Your task to perform on an android device: toggle show notifications on the lock screen Image 0: 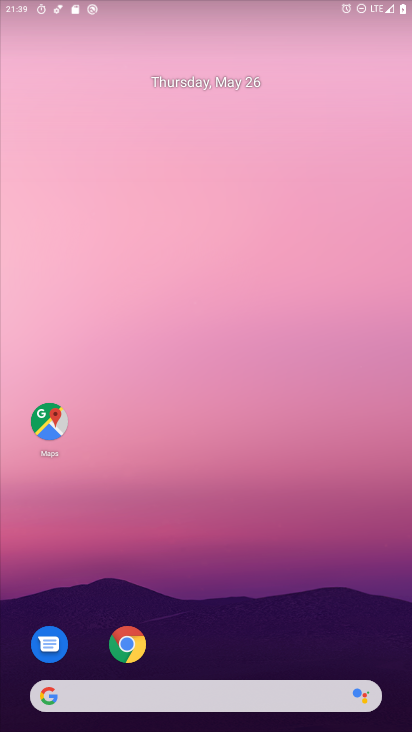
Step 0: drag from (252, 613) to (294, 139)
Your task to perform on an android device: toggle show notifications on the lock screen Image 1: 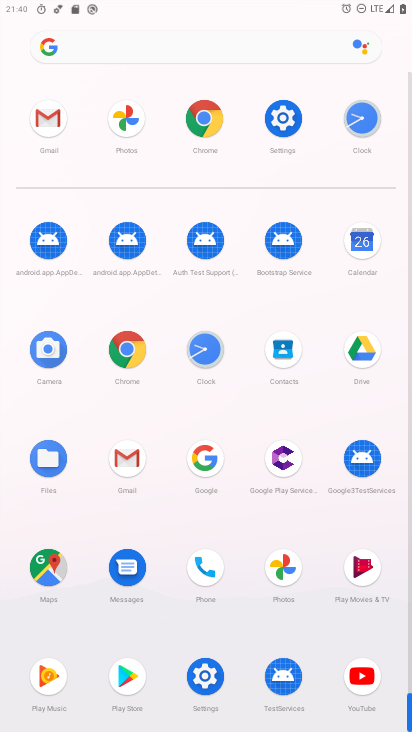
Step 1: click (290, 107)
Your task to perform on an android device: toggle show notifications on the lock screen Image 2: 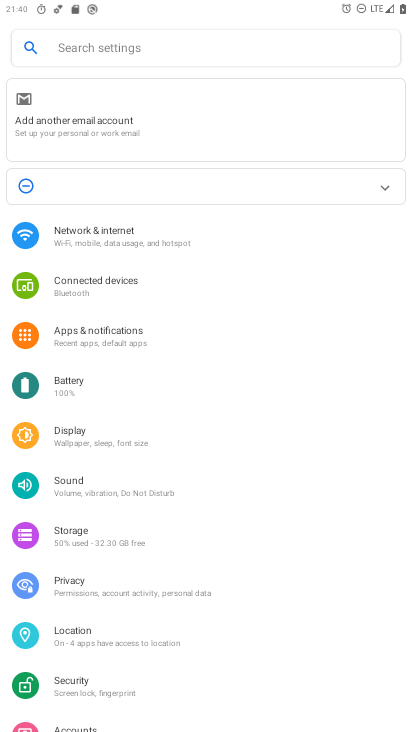
Step 2: drag from (231, 639) to (279, 252)
Your task to perform on an android device: toggle show notifications on the lock screen Image 3: 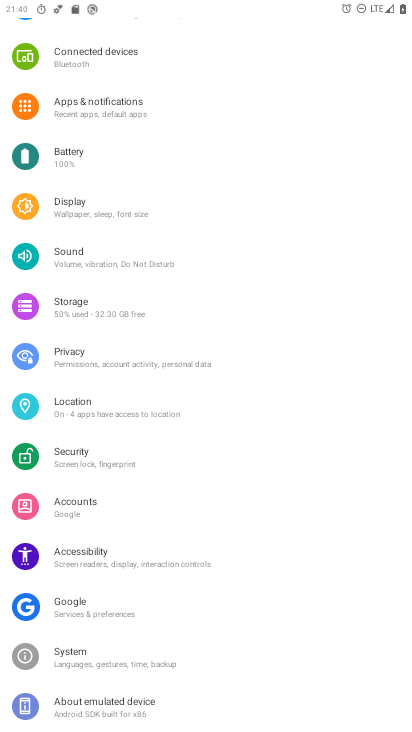
Step 3: click (164, 115)
Your task to perform on an android device: toggle show notifications on the lock screen Image 4: 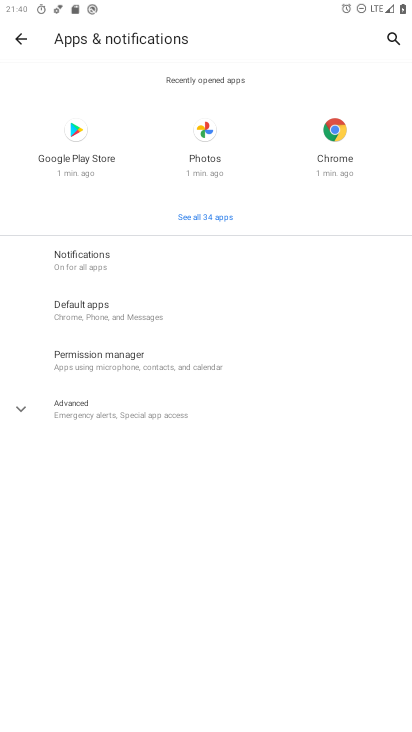
Step 4: click (150, 245)
Your task to perform on an android device: toggle show notifications on the lock screen Image 5: 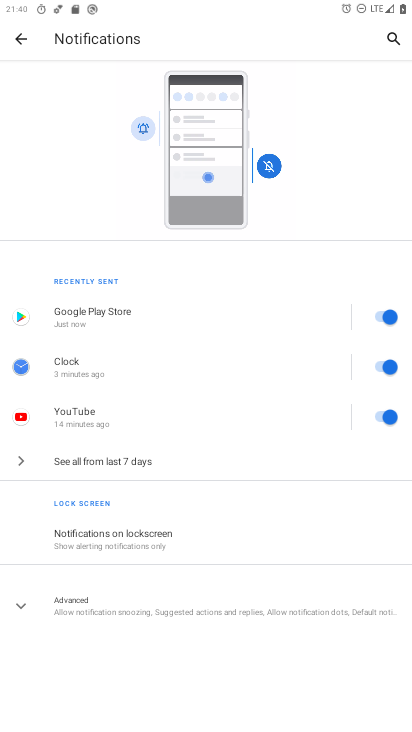
Step 5: click (198, 522)
Your task to perform on an android device: toggle show notifications on the lock screen Image 6: 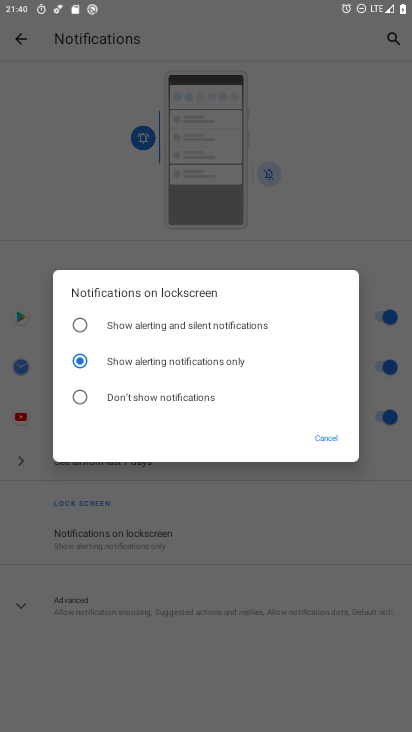
Step 6: click (152, 331)
Your task to perform on an android device: toggle show notifications on the lock screen Image 7: 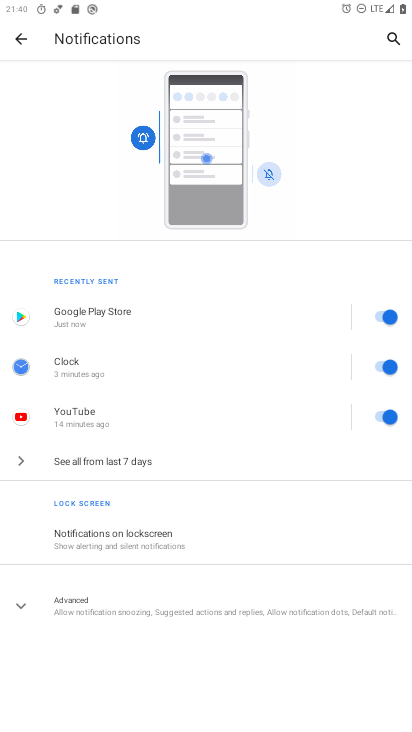
Step 7: task complete